Your task to perform on an android device: What's the price of the EGO 14-in 56-Volt Brushless Cordless Chainsaw? Image 0: 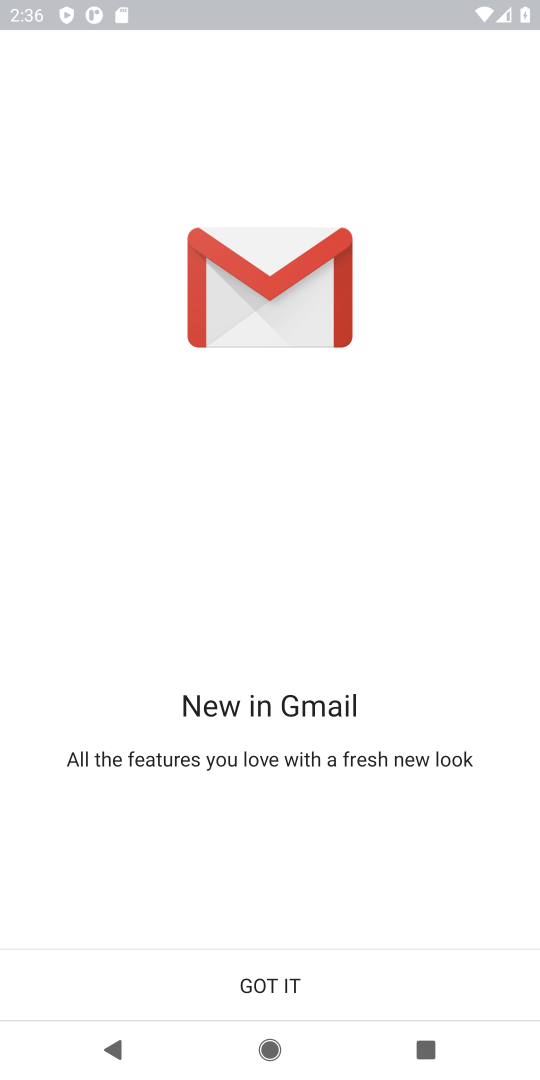
Step 0: click (336, 974)
Your task to perform on an android device: What's the price of the EGO 14-in 56-Volt Brushless Cordless Chainsaw? Image 1: 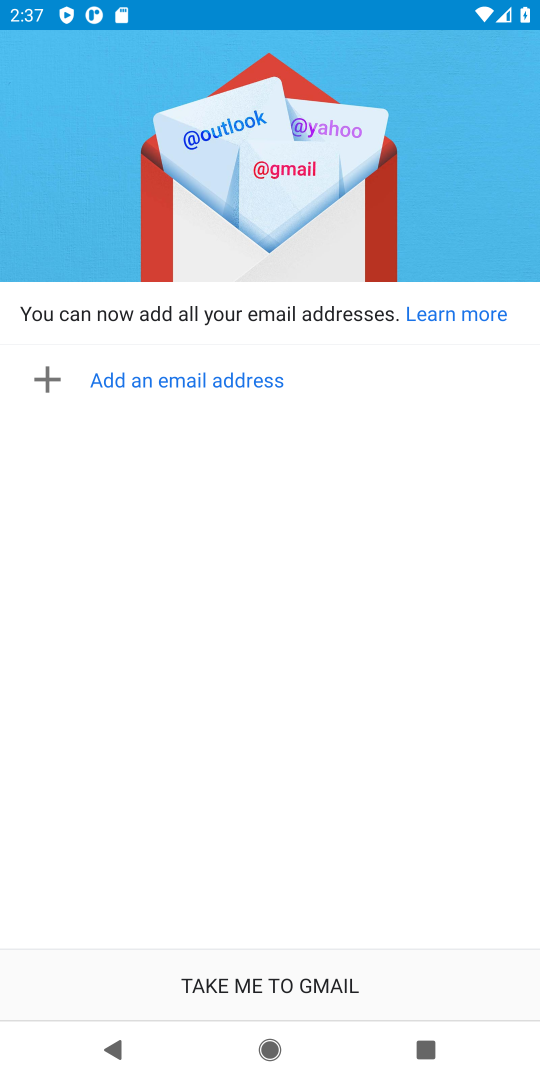
Step 1: press home button
Your task to perform on an android device: What's the price of the EGO 14-in 56-Volt Brushless Cordless Chainsaw? Image 2: 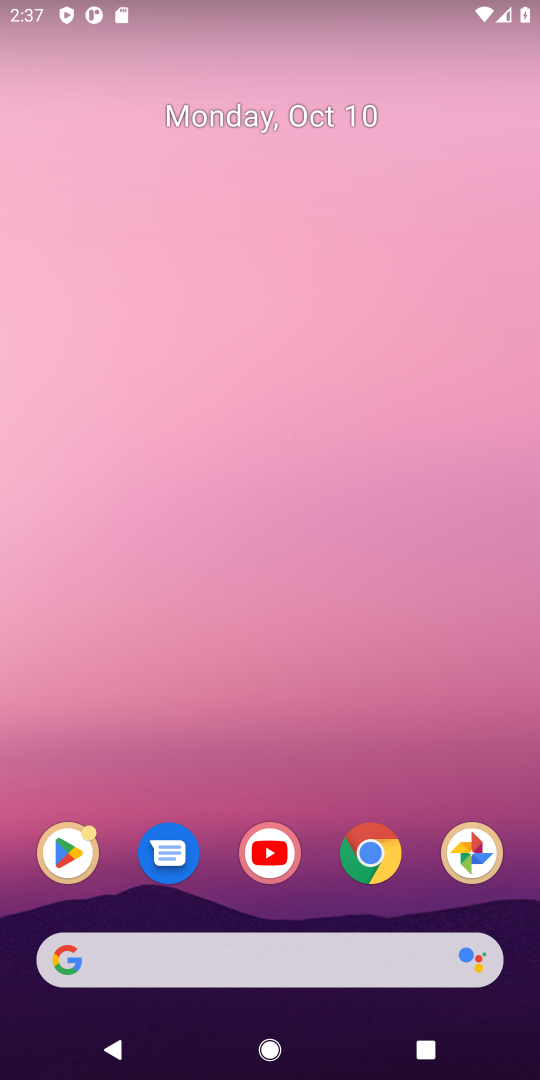
Step 2: click (377, 839)
Your task to perform on an android device: What's the price of the EGO 14-in 56-Volt Brushless Cordless Chainsaw? Image 3: 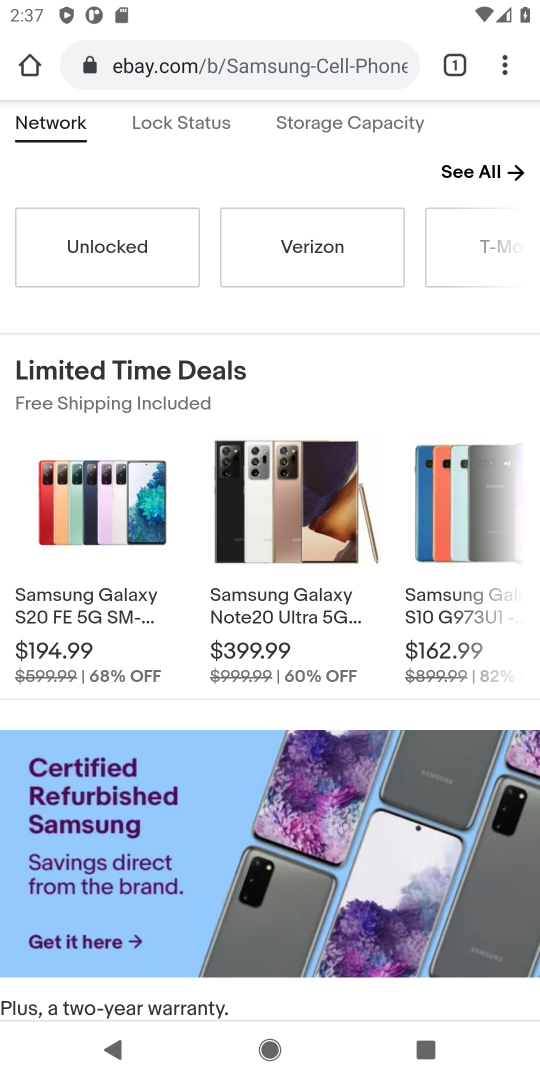
Step 3: click (323, 80)
Your task to perform on an android device: What's the price of the EGO 14-in 56-Volt Brushless Cordless Chainsaw? Image 4: 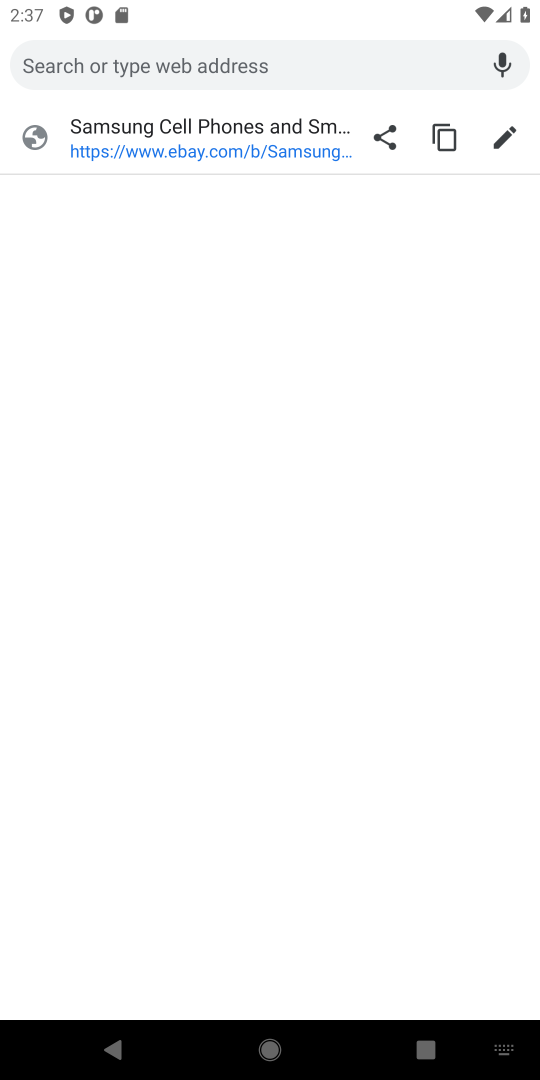
Step 4: type "price of the EGO 14-in 56-Volt Brushless Cordless Chainsaw?"
Your task to perform on an android device: What's the price of the EGO 14-in 56-Volt Brushless Cordless Chainsaw? Image 5: 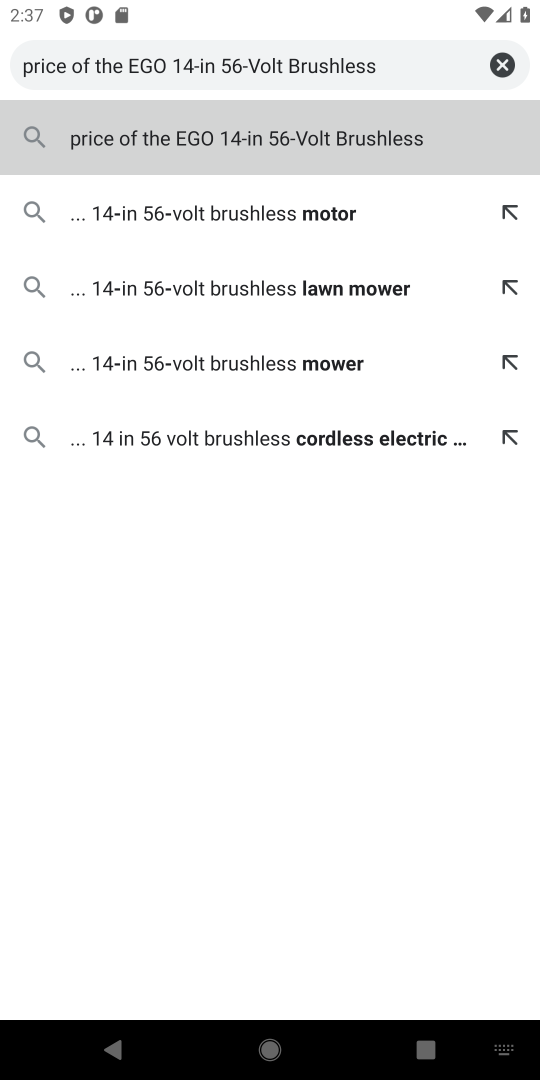
Step 5: type " cordless chainsaw"
Your task to perform on an android device: What's the price of the EGO 14-in 56-Volt Brushless Cordless Chainsaw? Image 6: 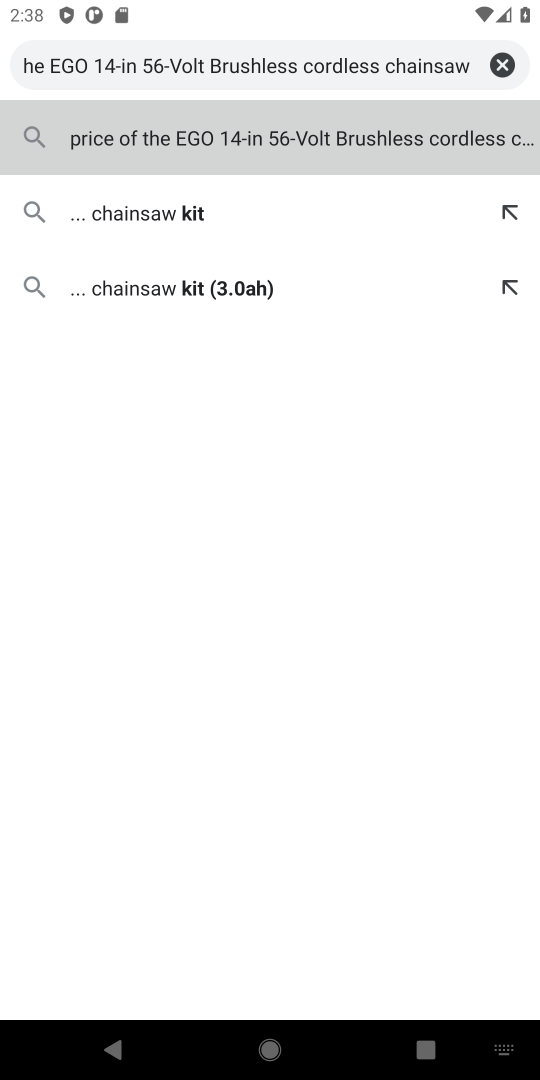
Step 6: click (423, 134)
Your task to perform on an android device: What's the price of the EGO 14-in 56-Volt Brushless Cordless Chainsaw? Image 7: 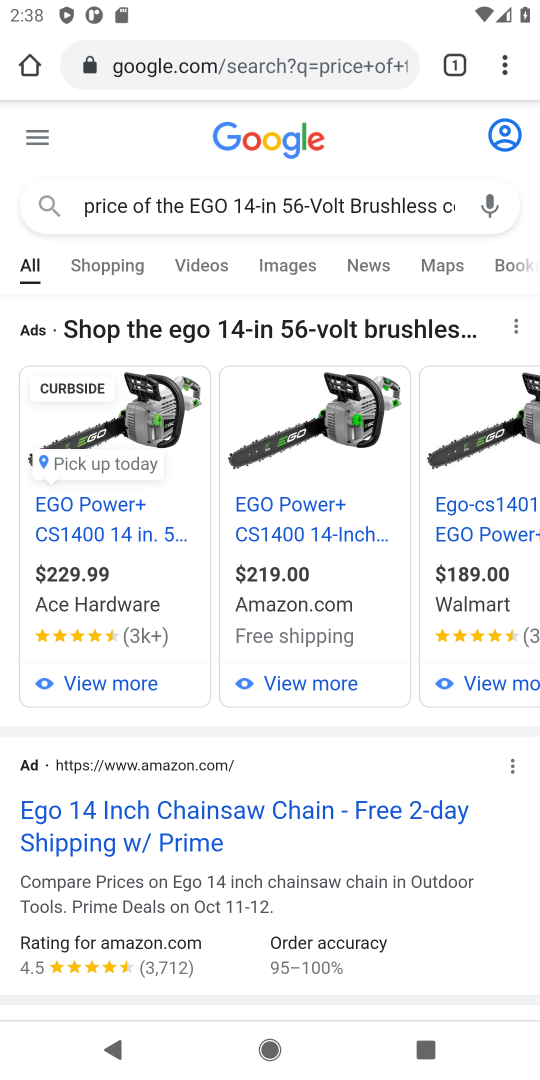
Step 7: task complete